Your task to perform on an android device: change notification settings in the gmail app Image 0: 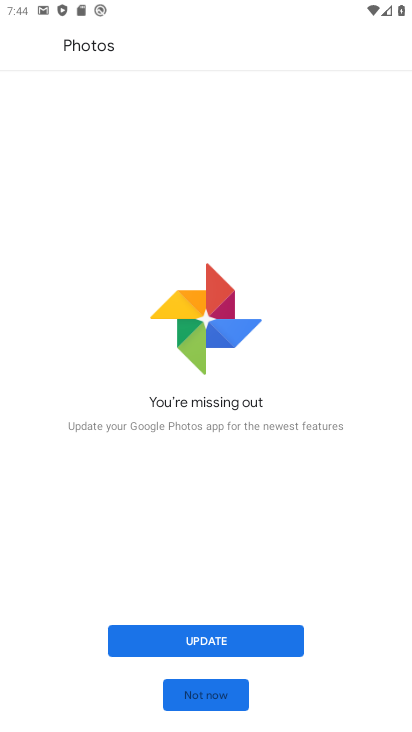
Step 0: press home button
Your task to perform on an android device: change notification settings in the gmail app Image 1: 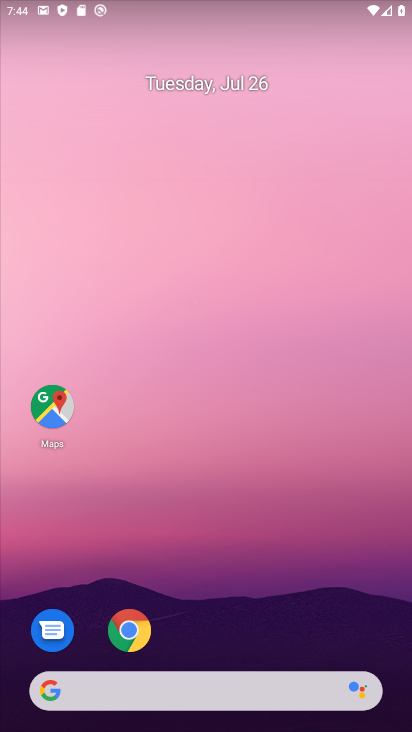
Step 1: drag from (276, 633) to (267, 38)
Your task to perform on an android device: change notification settings in the gmail app Image 2: 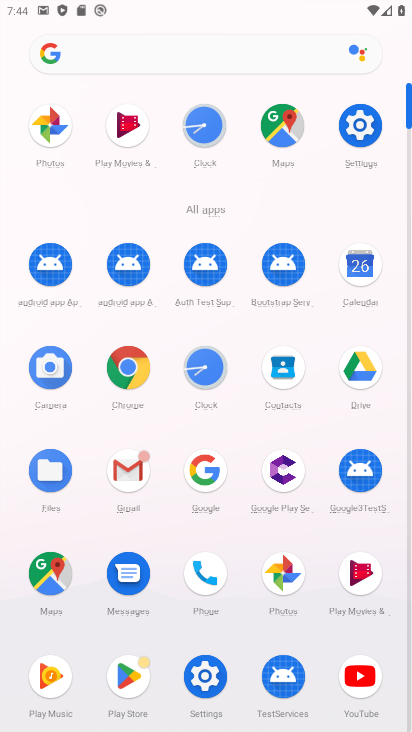
Step 2: click (133, 455)
Your task to perform on an android device: change notification settings in the gmail app Image 3: 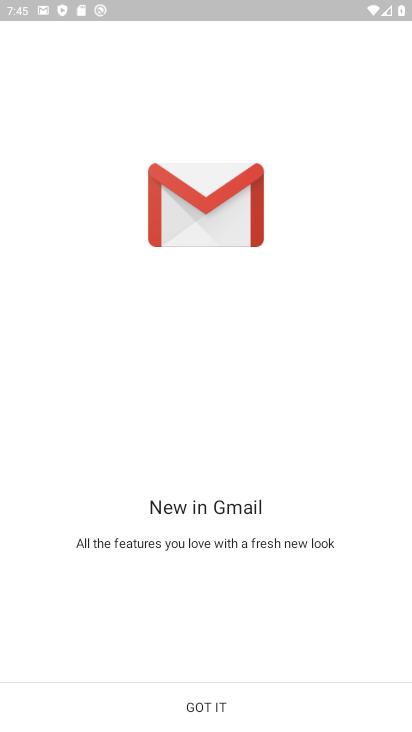
Step 3: click (231, 707)
Your task to perform on an android device: change notification settings in the gmail app Image 4: 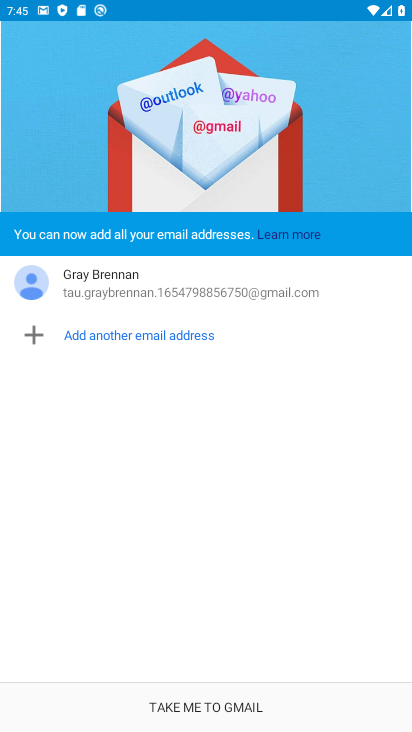
Step 4: click (229, 706)
Your task to perform on an android device: change notification settings in the gmail app Image 5: 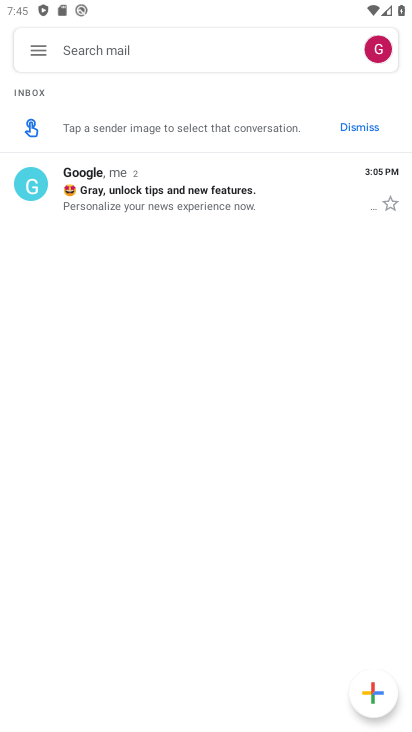
Step 5: click (46, 65)
Your task to perform on an android device: change notification settings in the gmail app Image 6: 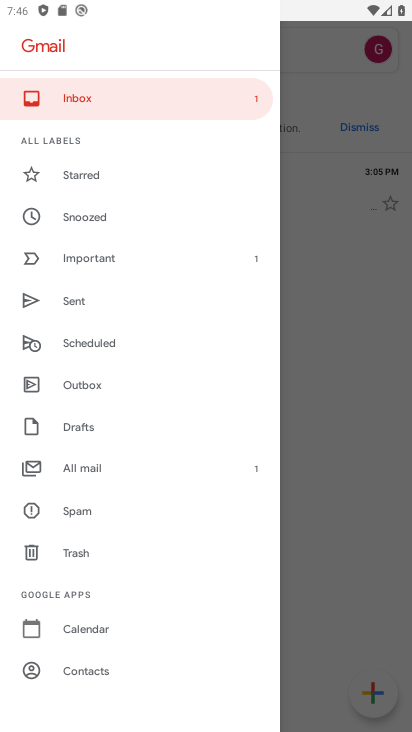
Step 6: drag from (122, 606) to (138, 186)
Your task to perform on an android device: change notification settings in the gmail app Image 7: 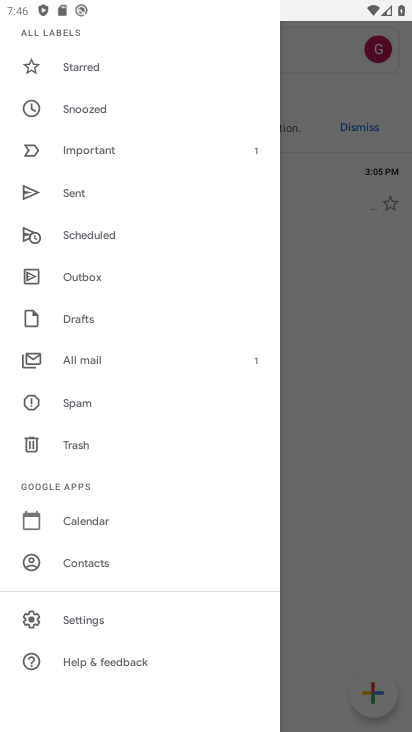
Step 7: click (109, 620)
Your task to perform on an android device: change notification settings in the gmail app Image 8: 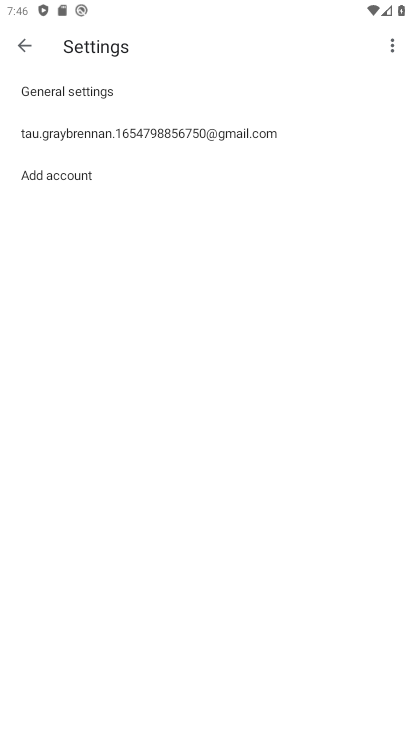
Step 8: click (102, 91)
Your task to perform on an android device: change notification settings in the gmail app Image 9: 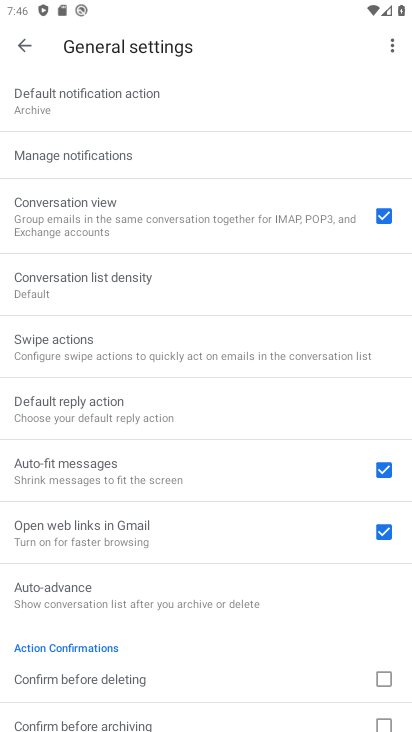
Step 9: click (102, 170)
Your task to perform on an android device: change notification settings in the gmail app Image 10: 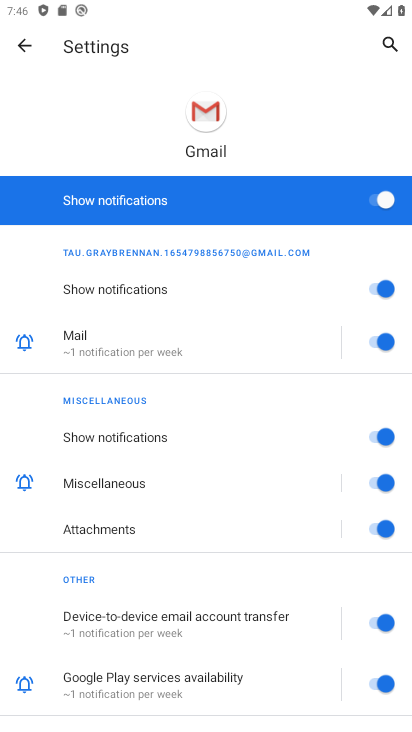
Step 10: click (204, 195)
Your task to perform on an android device: change notification settings in the gmail app Image 11: 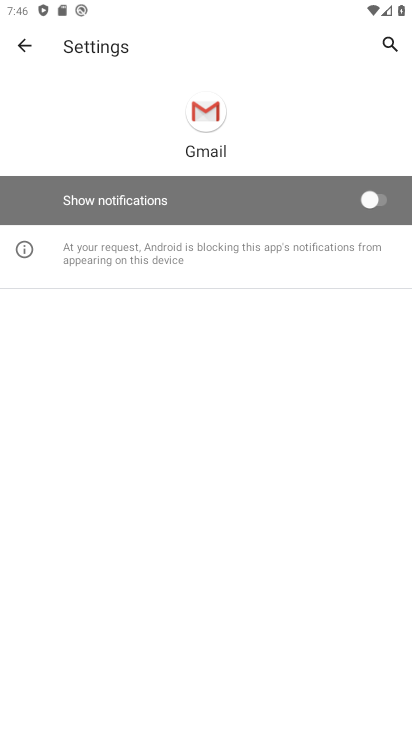
Step 11: task complete